Your task to perform on an android device: open app "Walmart Shopping & Grocery" (install if not already installed) Image 0: 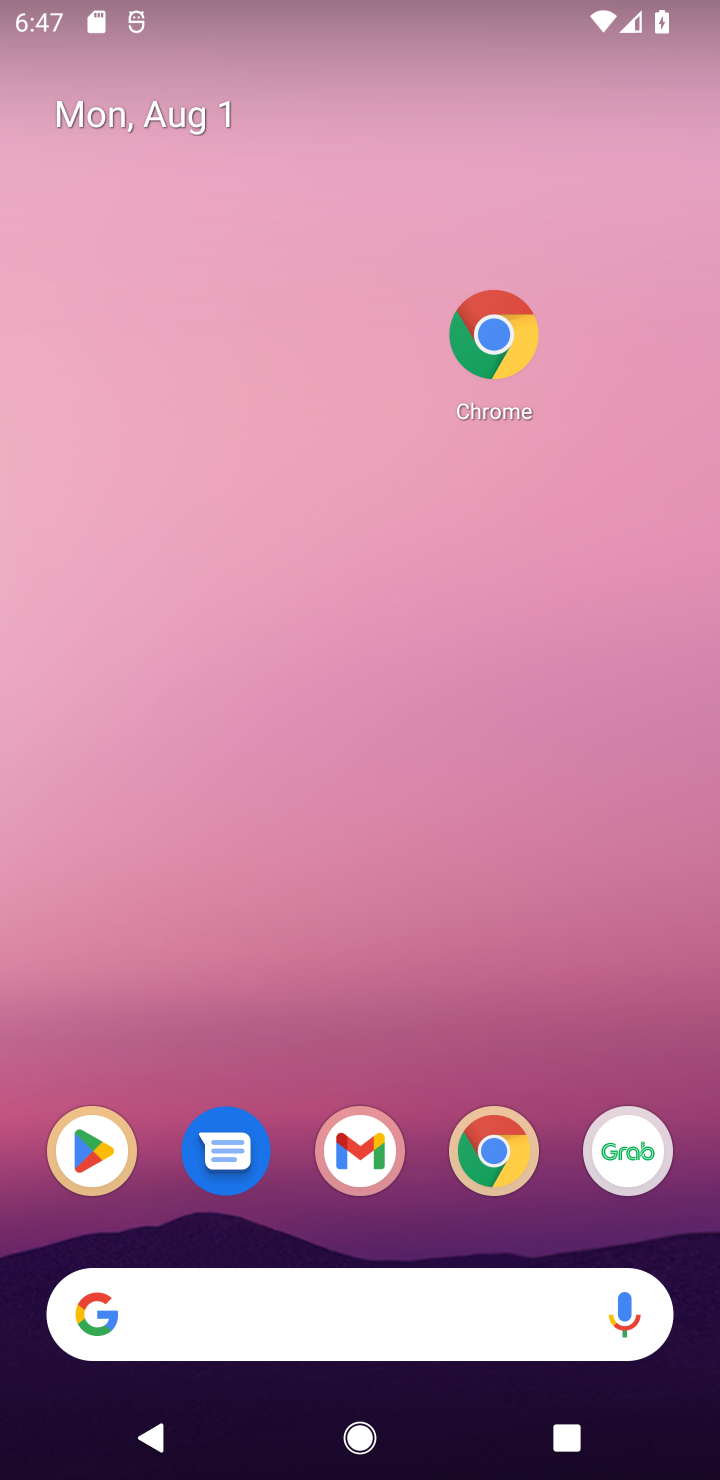
Step 0: click (77, 1148)
Your task to perform on an android device: open app "Walmart Shopping & Grocery" (install if not already installed) Image 1: 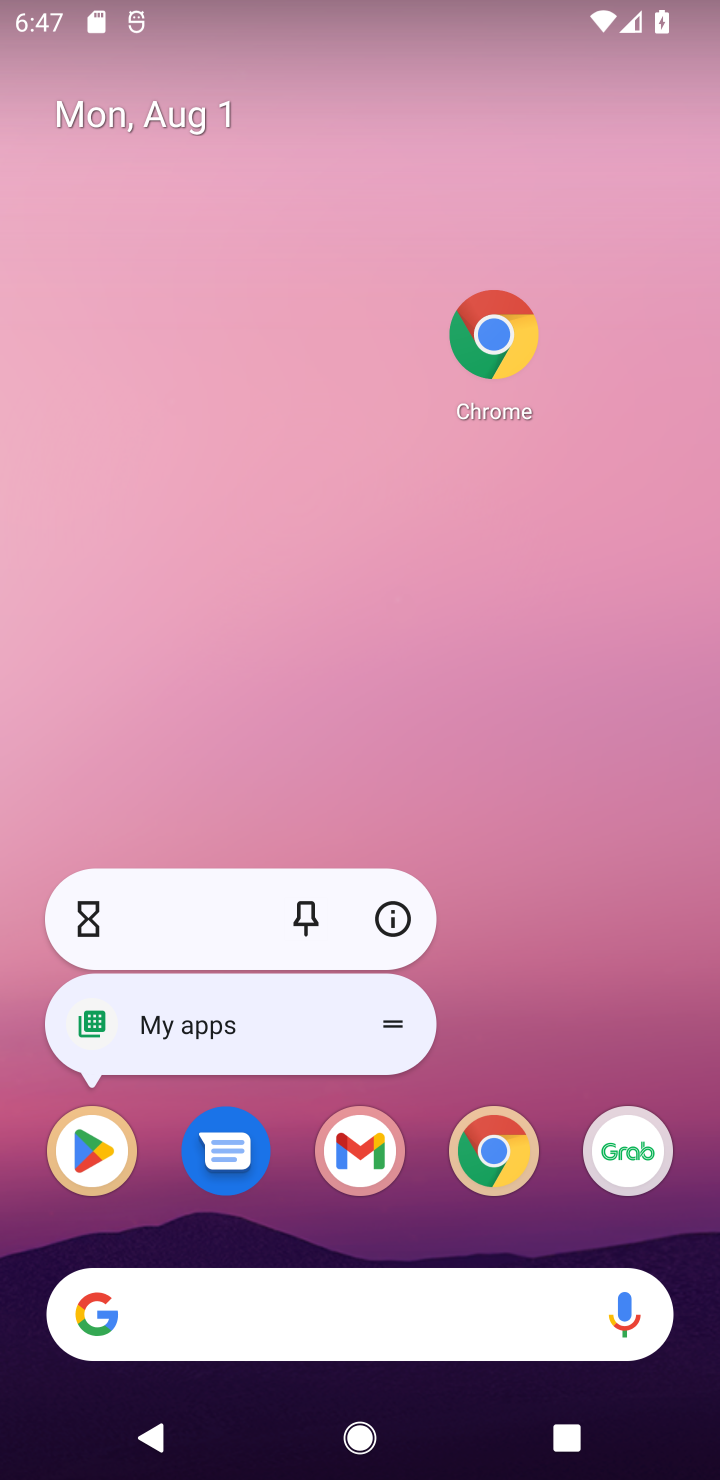
Step 1: click (105, 1162)
Your task to perform on an android device: open app "Walmart Shopping & Grocery" (install if not already installed) Image 2: 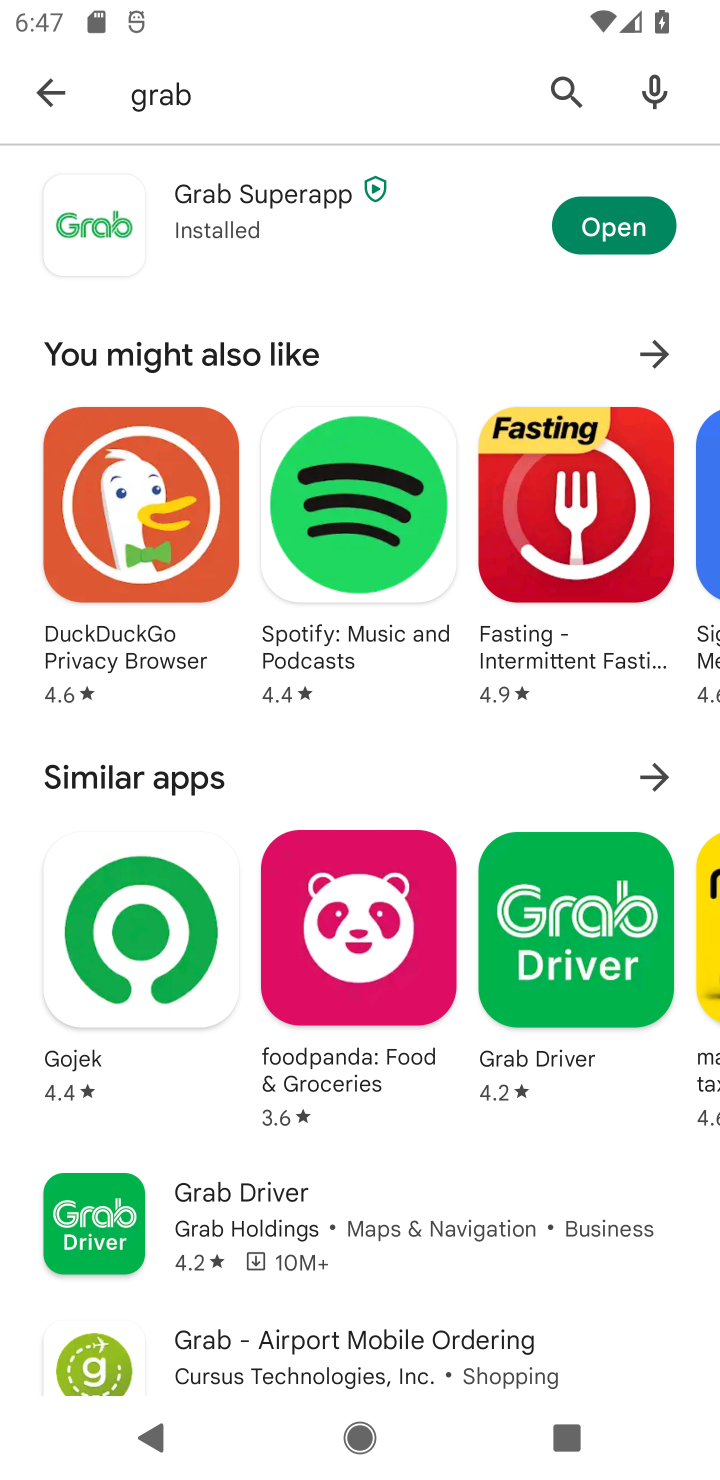
Step 2: click (562, 81)
Your task to perform on an android device: open app "Walmart Shopping & Grocery" (install if not already installed) Image 3: 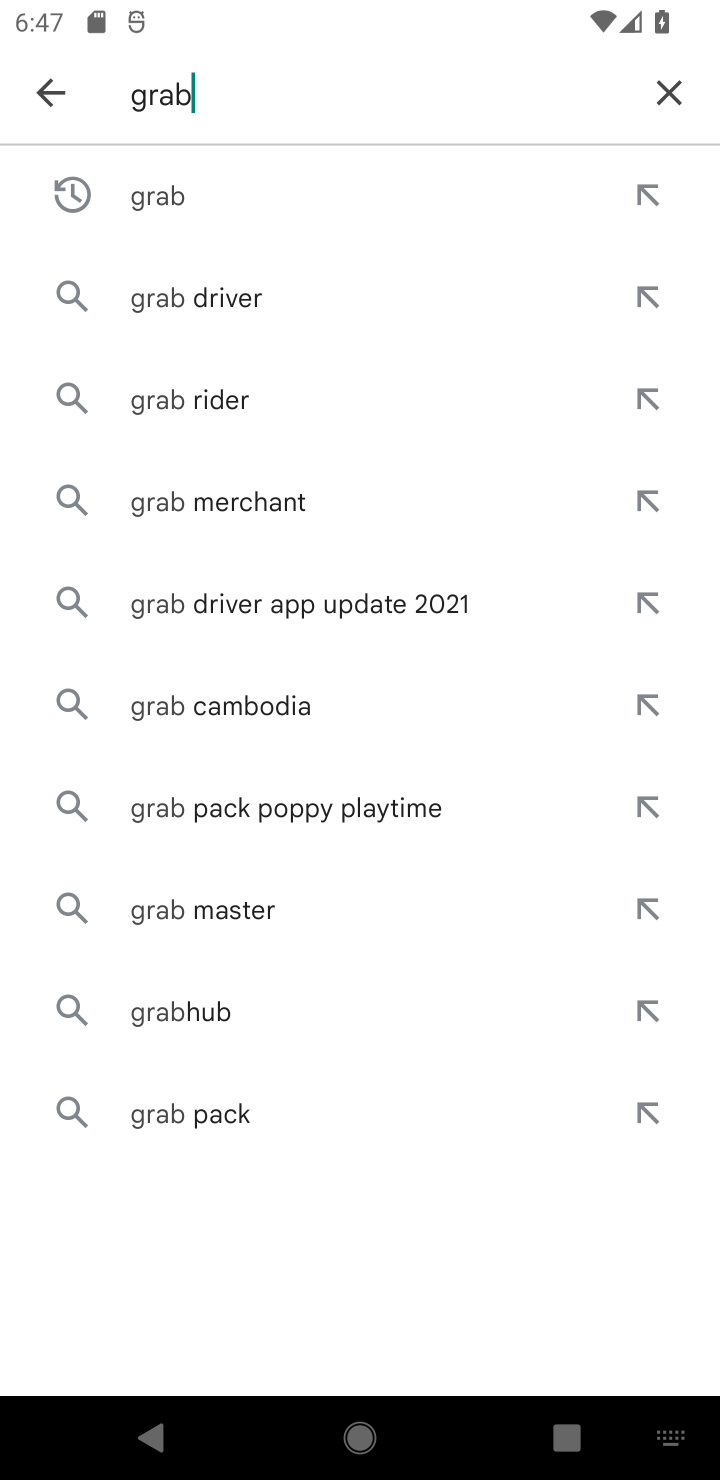
Step 3: click (656, 77)
Your task to perform on an android device: open app "Walmart Shopping & Grocery" (install if not already installed) Image 4: 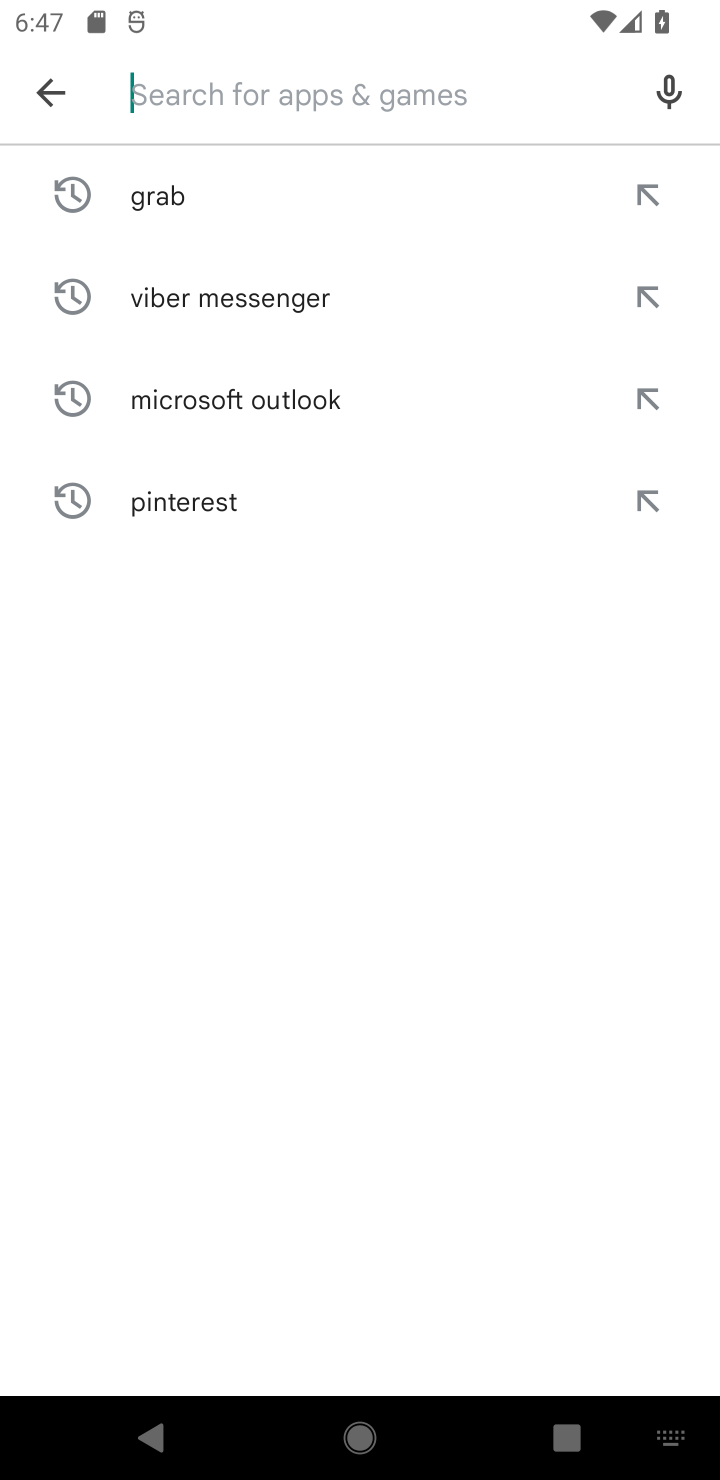
Step 4: type "Walmart Shopping & Grocery"
Your task to perform on an android device: open app "Walmart Shopping & Grocery" (install if not already installed) Image 5: 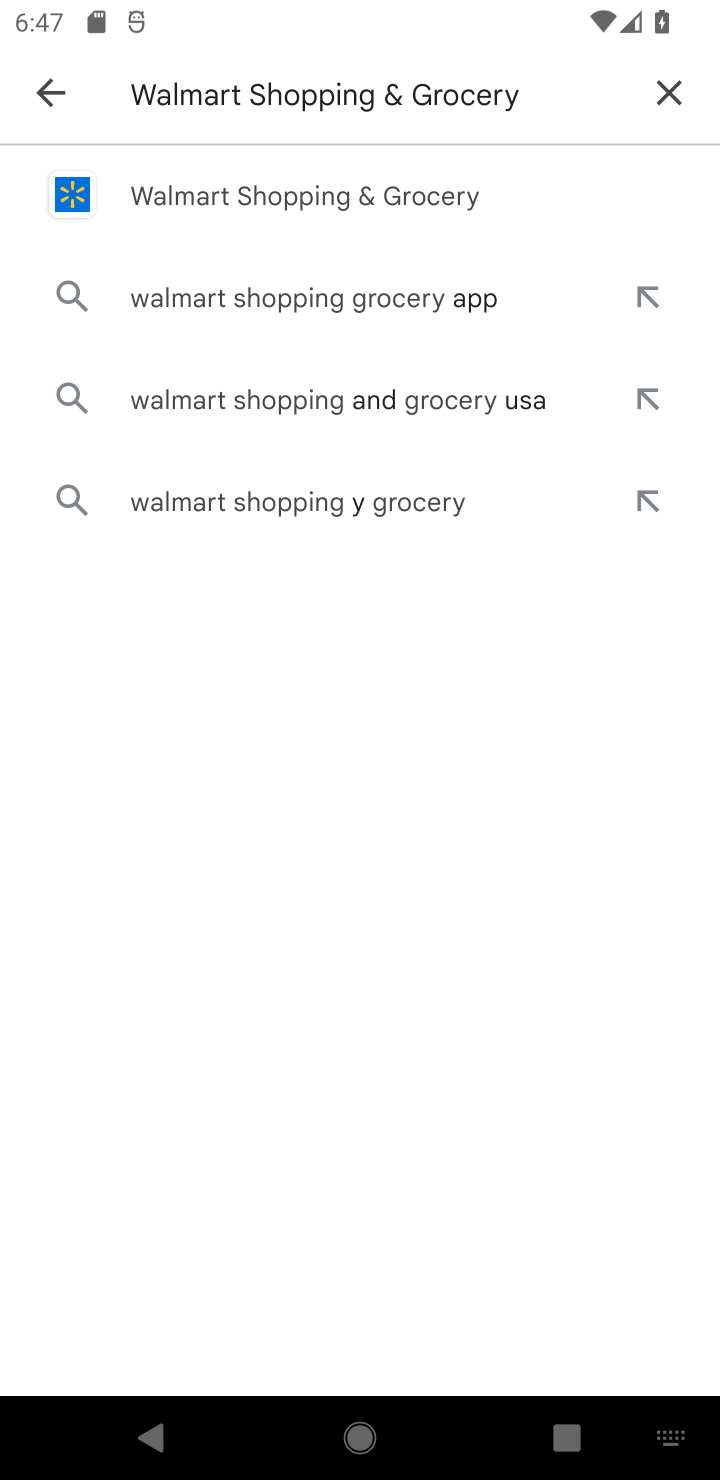
Step 5: click (313, 225)
Your task to perform on an android device: open app "Walmart Shopping & Grocery" (install if not already installed) Image 6: 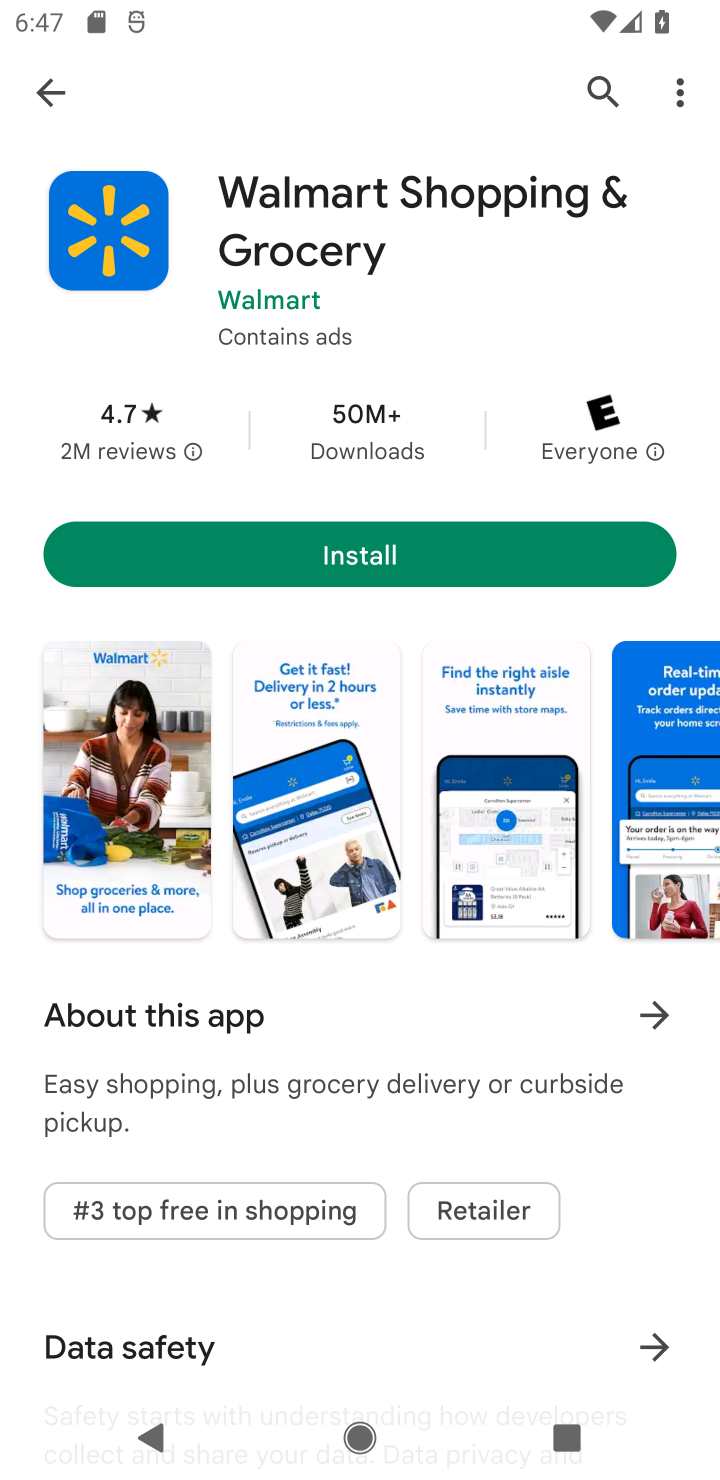
Step 6: click (332, 569)
Your task to perform on an android device: open app "Walmart Shopping & Grocery" (install if not already installed) Image 7: 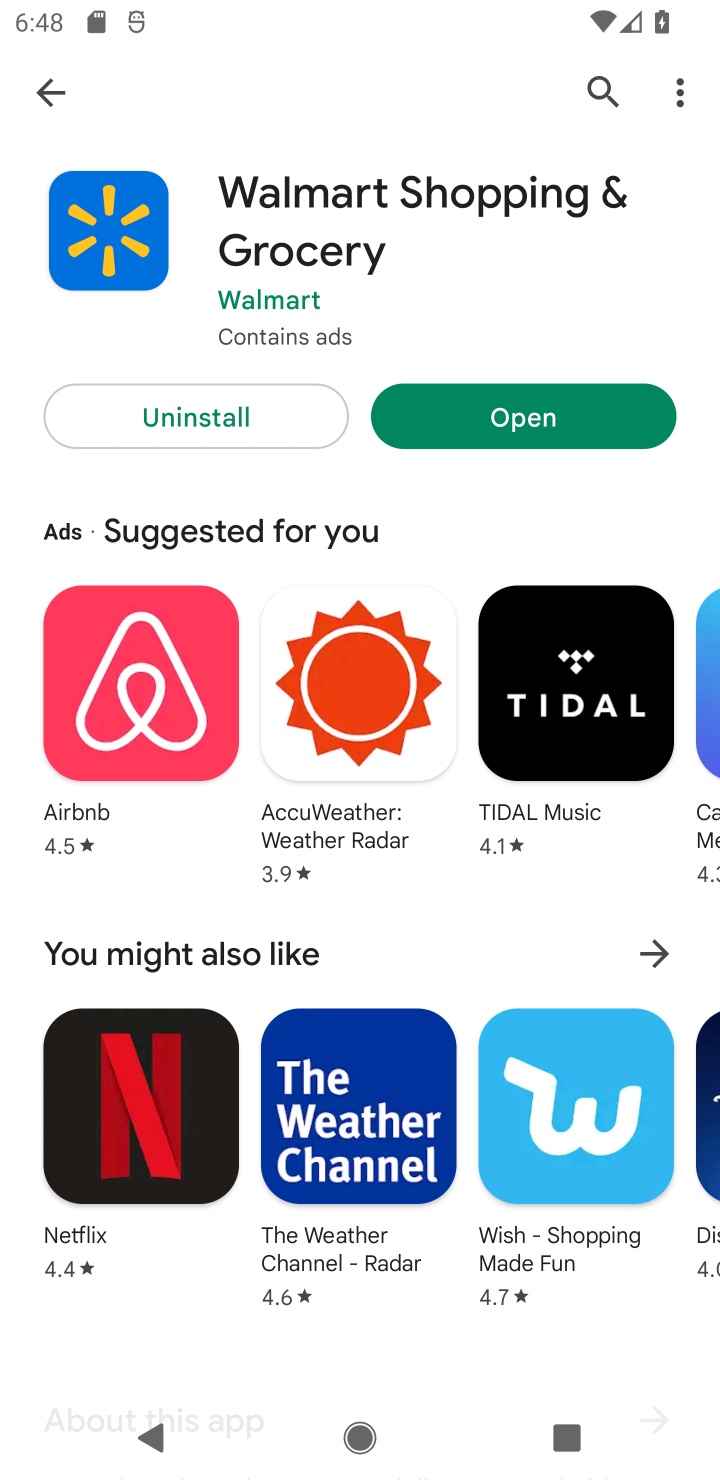
Step 7: click (519, 420)
Your task to perform on an android device: open app "Walmart Shopping & Grocery" (install if not already installed) Image 8: 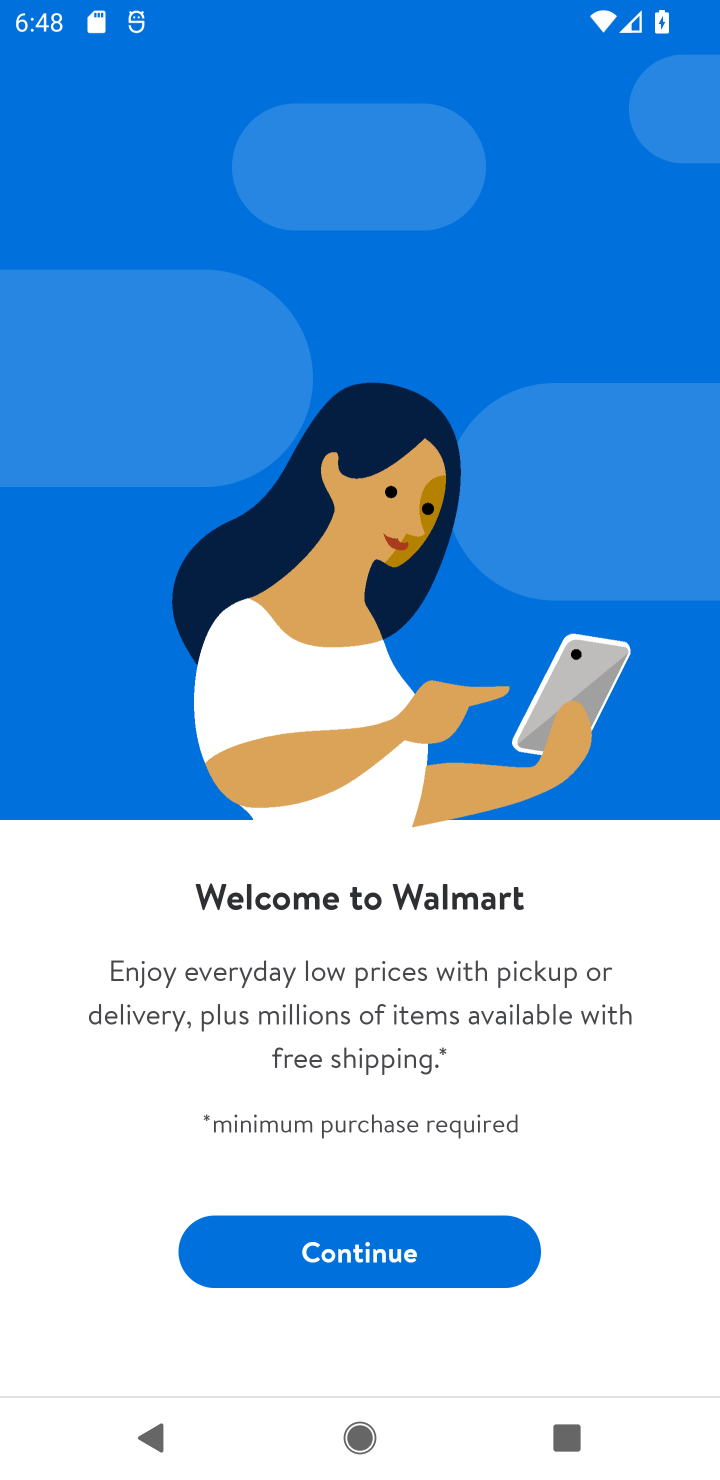
Step 8: task complete